Your task to perform on an android device: Search for vegetarian restaurants on Maps Image 0: 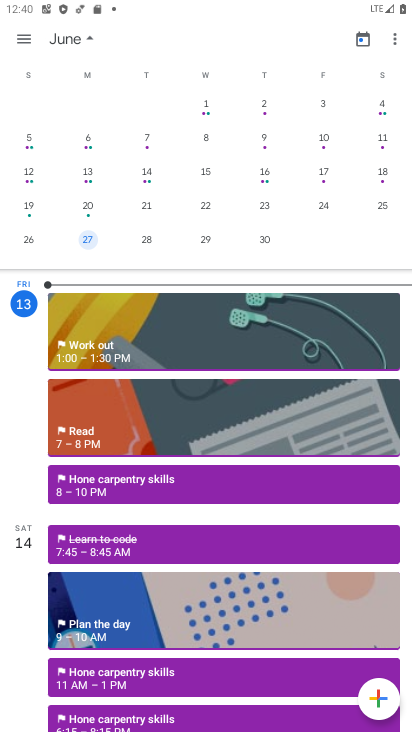
Step 0: press home button
Your task to perform on an android device: Search for vegetarian restaurants on Maps Image 1: 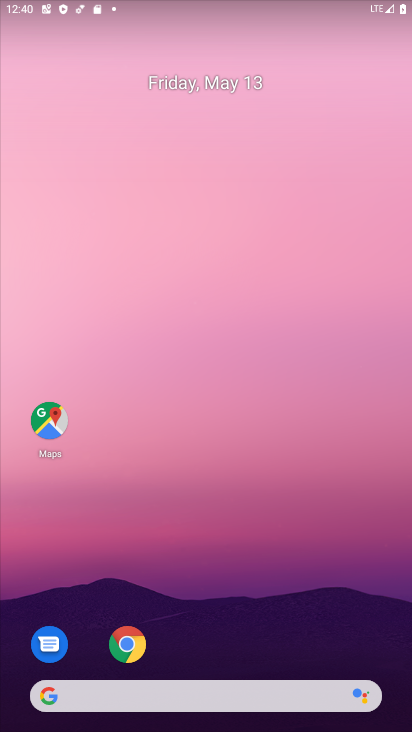
Step 1: drag from (324, 632) to (251, 69)
Your task to perform on an android device: Search for vegetarian restaurants on Maps Image 2: 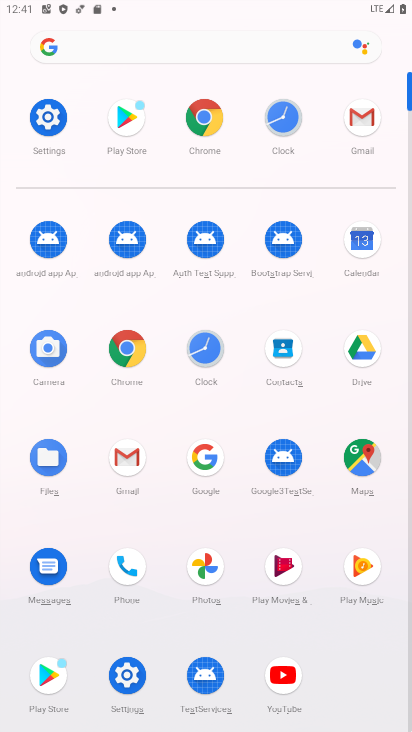
Step 2: click (345, 453)
Your task to perform on an android device: Search for vegetarian restaurants on Maps Image 3: 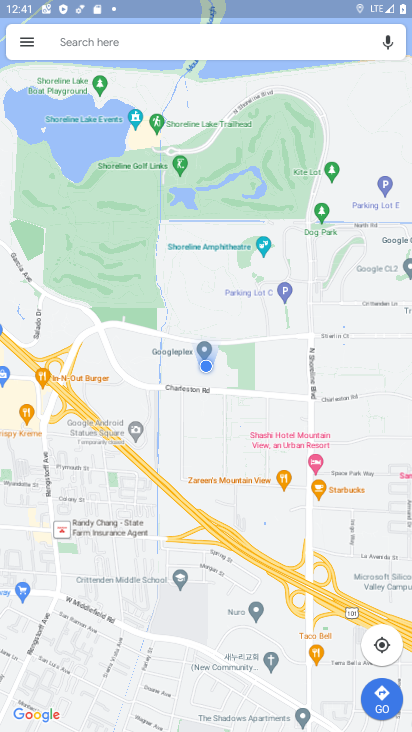
Step 3: click (205, 48)
Your task to perform on an android device: Search for vegetarian restaurants on Maps Image 4: 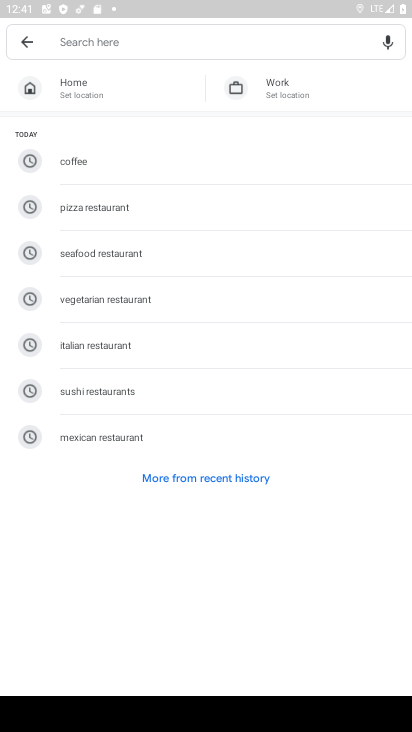
Step 4: click (177, 301)
Your task to perform on an android device: Search for vegetarian restaurants on Maps Image 5: 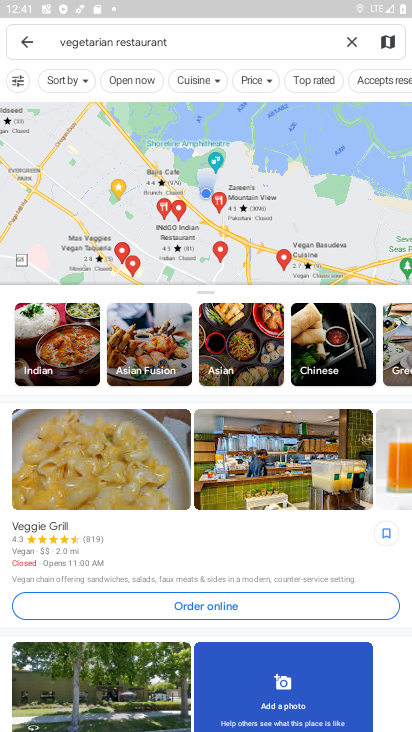
Step 5: task complete